Your task to perform on an android device: Go to ESPN.com Image 0: 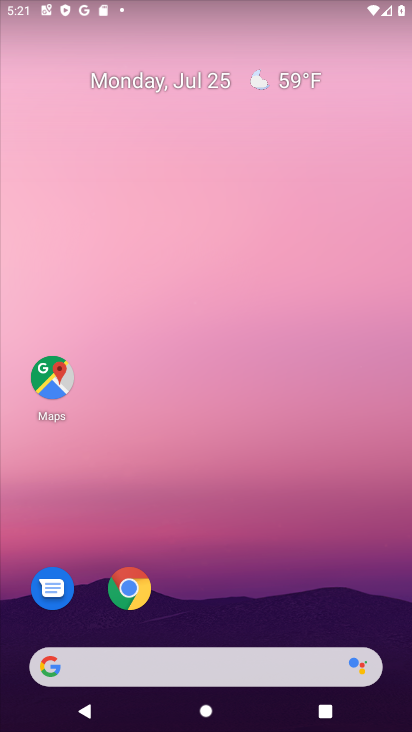
Step 0: click (222, 661)
Your task to perform on an android device: Go to ESPN.com Image 1: 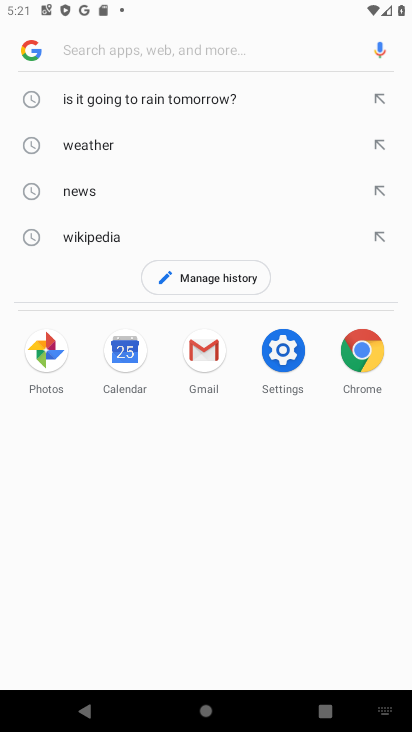
Step 1: type "ESPN.com"
Your task to perform on an android device: Go to ESPN.com Image 2: 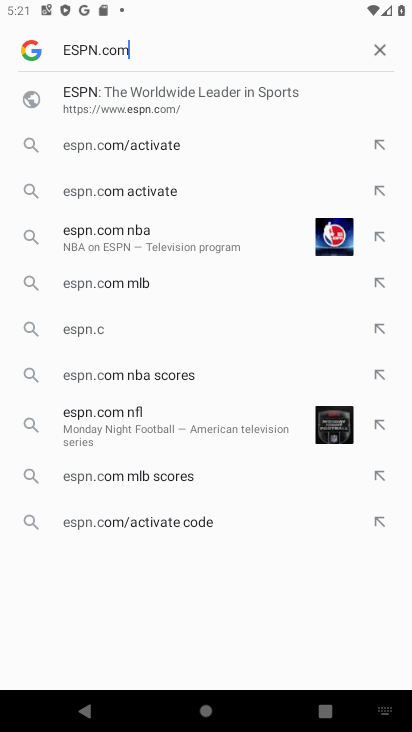
Step 2: press enter
Your task to perform on an android device: Go to ESPN.com Image 3: 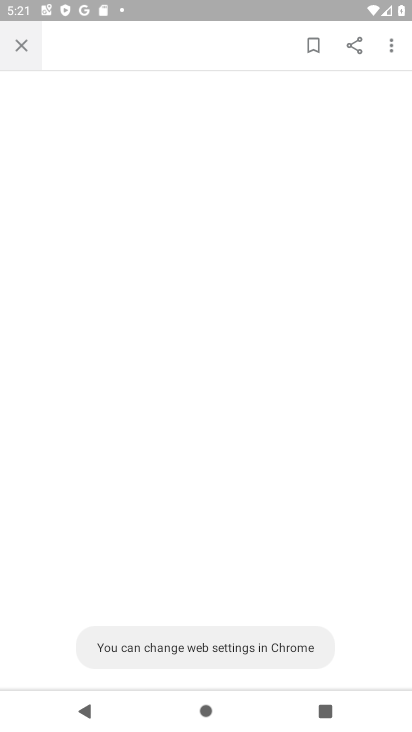
Step 3: task complete